Your task to perform on an android device: find snoozed emails in the gmail app Image 0: 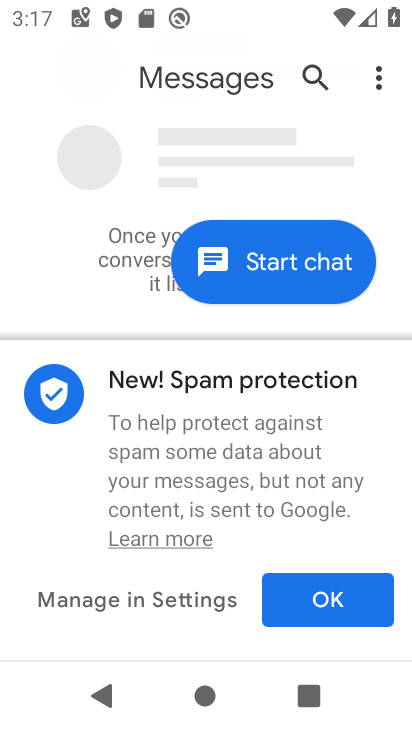
Step 0: press back button
Your task to perform on an android device: find snoozed emails in the gmail app Image 1: 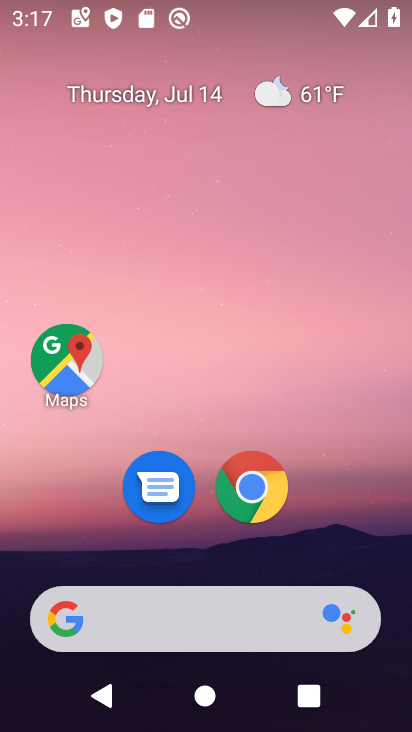
Step 1: drag from (223, 516) to (280, 13)
Your task to perform on an android device: find snoozed emails in the gmail app Image 2: 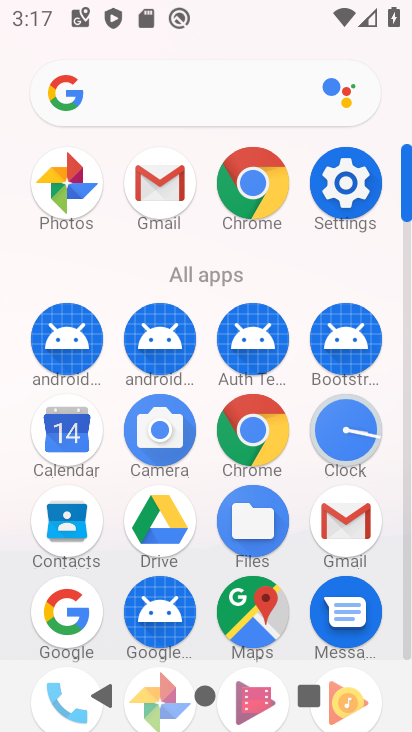
Step 2: click (163, 183)
Your task to perform on an android device: find snoozed emails in the gmail app Image 3: 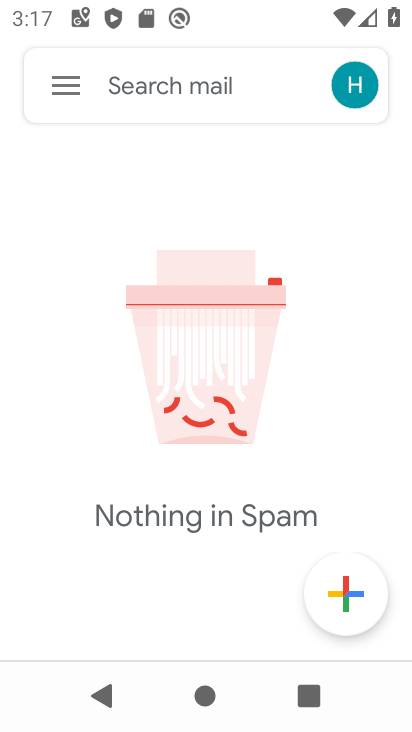
Step 3: click (56, 87)
Your task to perform on an android device: find snoozed emails in the gmail app Image 4: 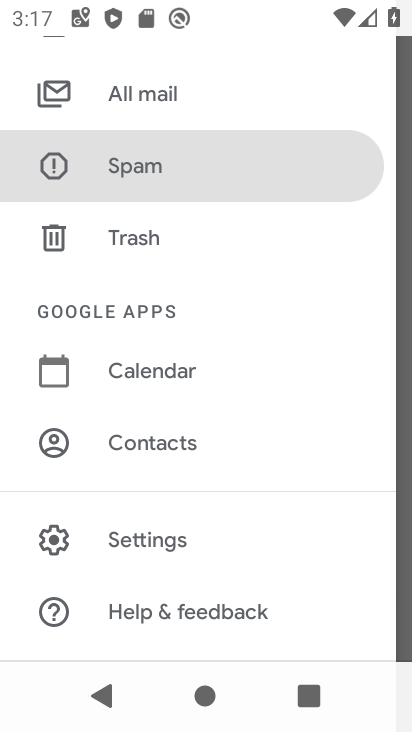
Step 4: drag from (234, 174) to (217, 693)
Your task to perform on an android device: find snoozed emails in the gmail app Image 5: 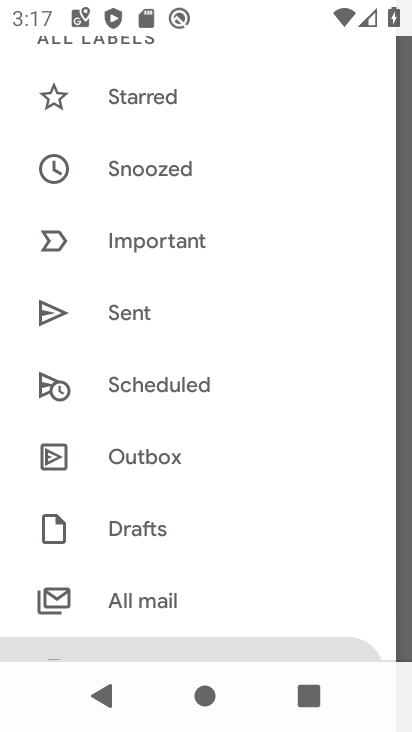
Step 5: click (182, 176)
Your task to perform on an android device: find snoozed emails in the gmail app Image 6: 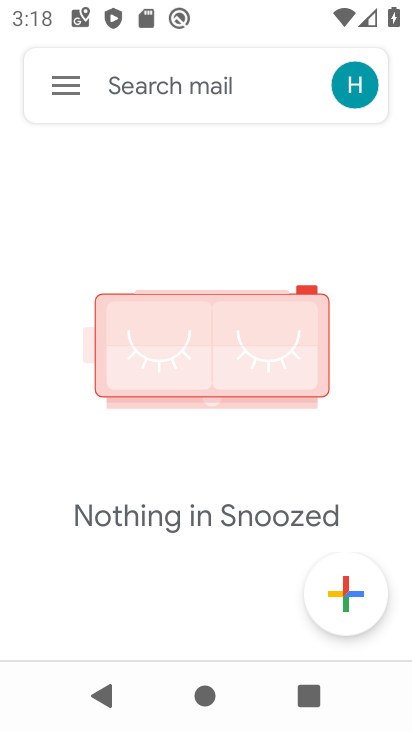
Step 6: task complete